Your task to perform on an android device: turn off smart reply in the gmail app Image 0: 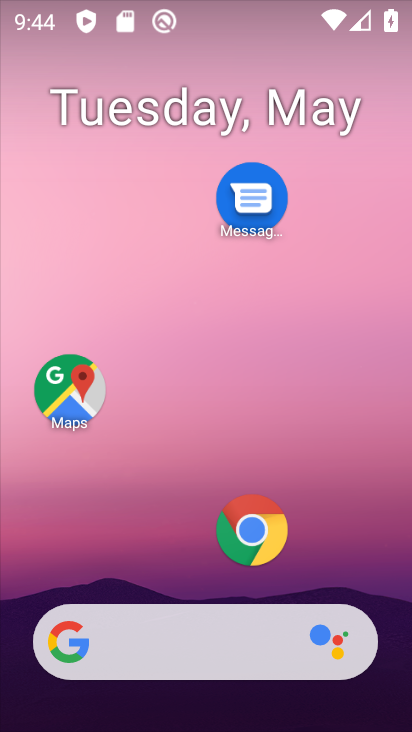
Step 0: drag from (189, 591) to (144, 54)
Your task to perform on an android device: turn off smart reply in the gmail app Image 1: 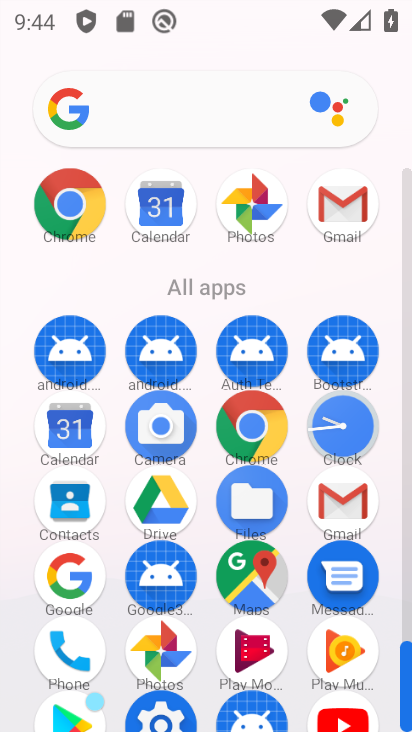
Step 1: click (357, 220)
Your task to perform on an android device: turn off smart reply in the gmail app Image 2: 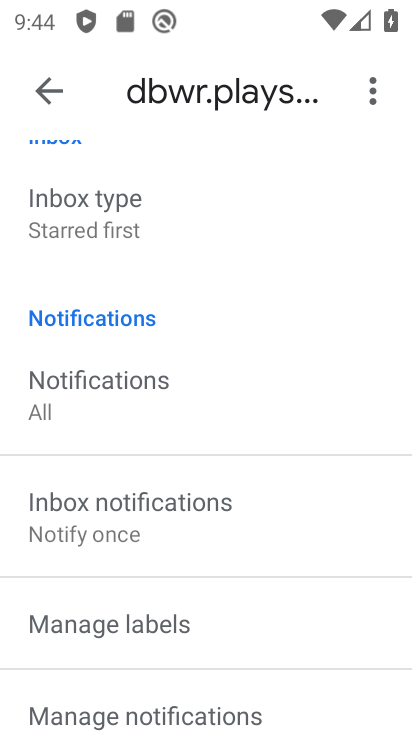
Step 2: drag from (92, 582) to (74, 142)
Your task to perform on an android device: turn off smart reply in the gmail app Image 3: 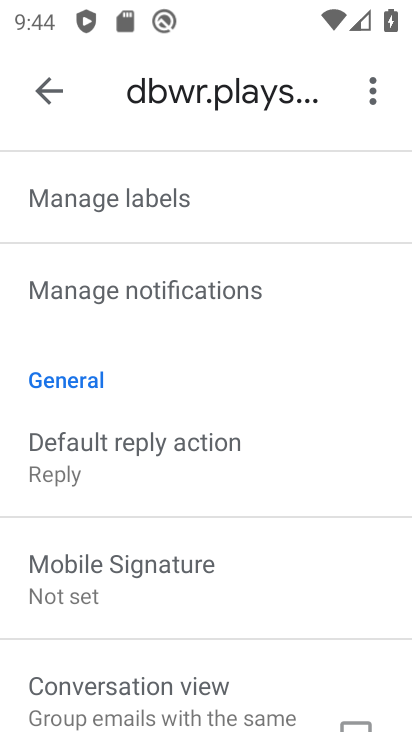
Step 3: drag from (98, 548) to (149, 153)
Your task to perform on an android device: turn off smart reply in the gmail app Image 4: 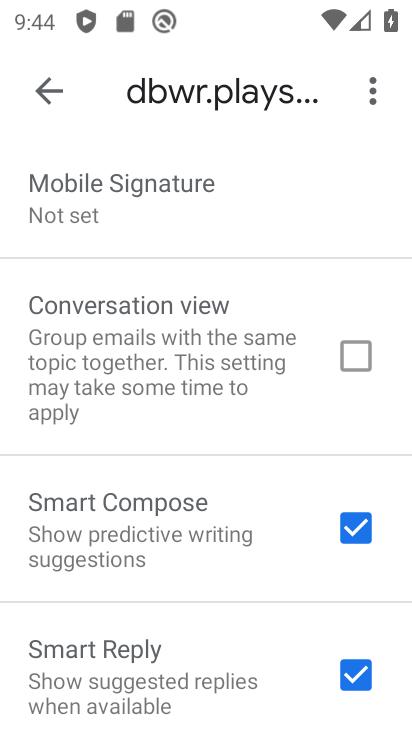
Step 4: click (356, 675)
Your task to perform on an android device: turn off smart reply in the gmail app Image 5: 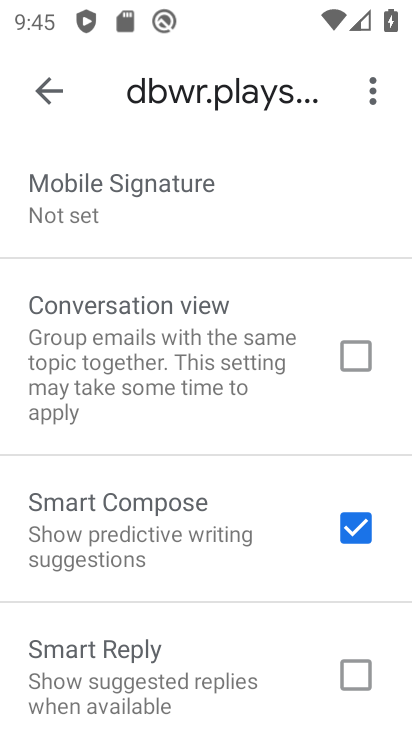
Step 5: task complete